Your task to perform on an android device: open device folders in google photos Image 0: 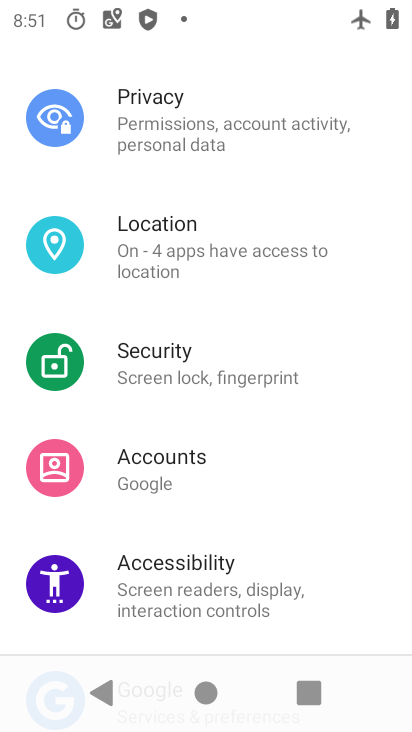
Step 0: press home button
Your task to perform on an android device: open device folders in google photos Image 1: 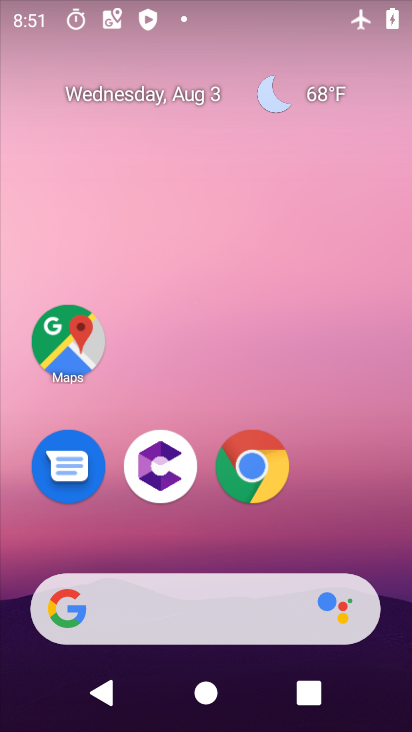
Step 1: drag from (369, 538) to (340, 66)
Your task to perform on an android device: open device folders in google photos Image 2: 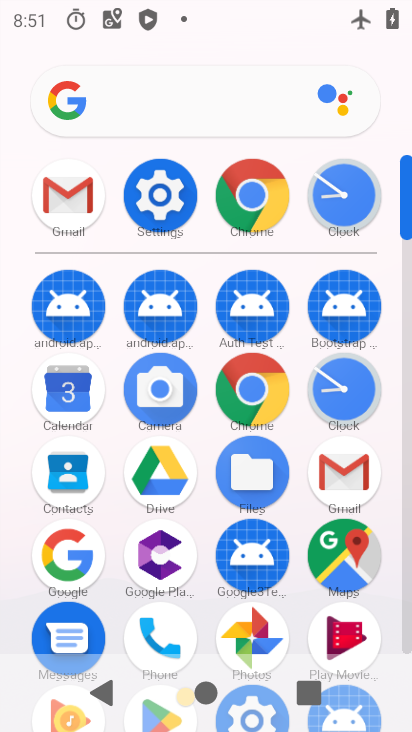
Step 2: click (251, 649)
Your task to perform on an android device: open device folders in google photos Image 3: 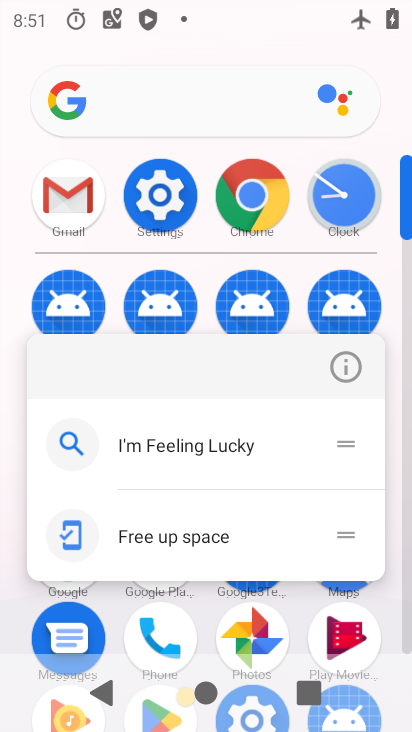
Step 3: click (247, 635)
Your task to perform on an android device: open device folders in google photos Image 4: 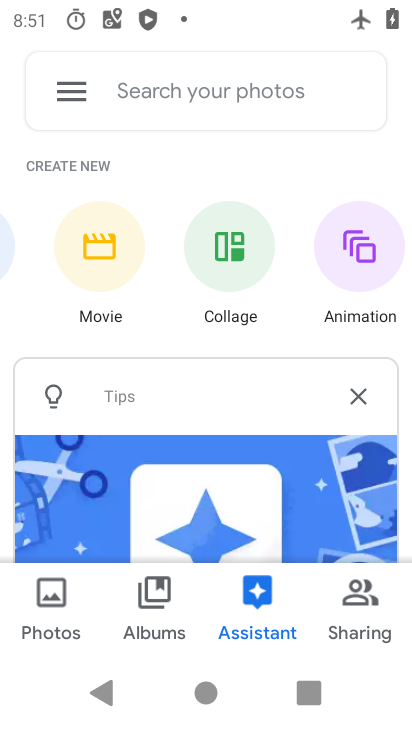
Step 4: click (55, 89)
Your task to perform on an android device: open device folders in google photos Image 5: 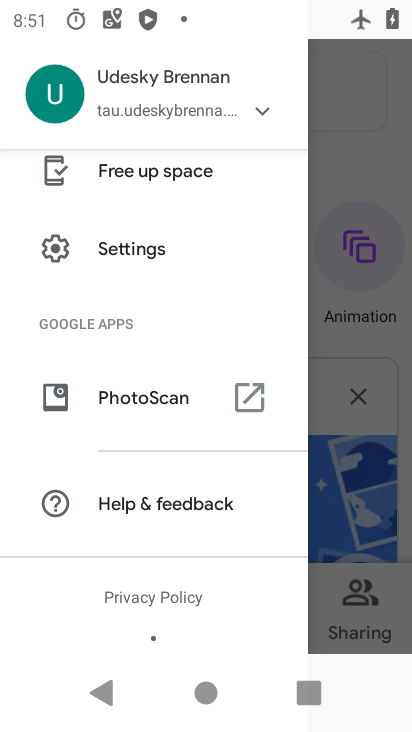
Step 5: drag from (119, 186) to (111, 528)
Your task to perform on an android device: open device folders in google photos Image 6: 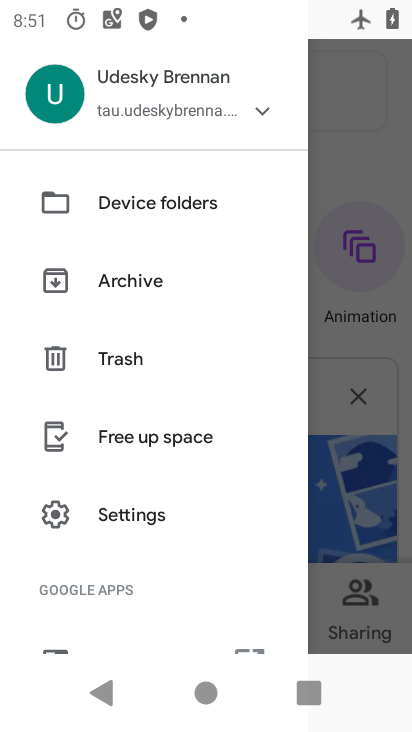
Step 6: click (132, 207)
Your task to perform on an android device: open device folders in google photos Image 7: 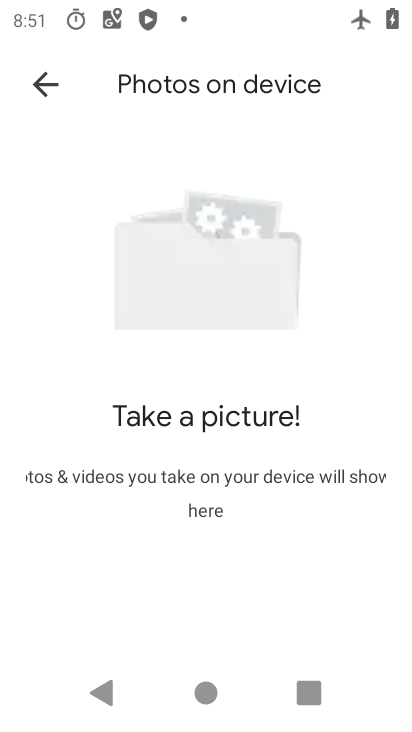
Step 7: task complete